Your task to perform on an android device: toggle show notifications on the lock screen Image 0: 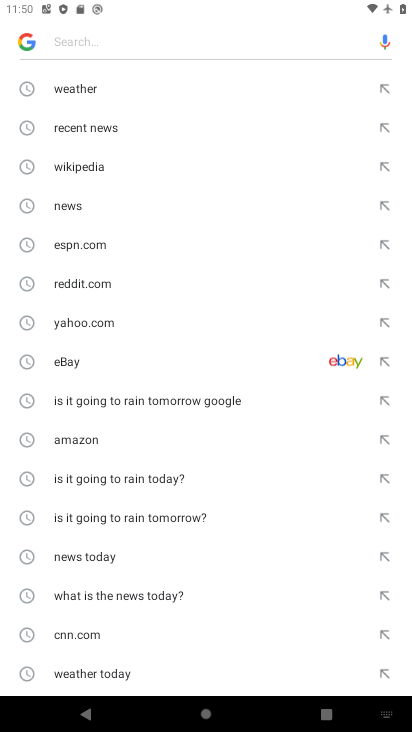
Step 0: press home button
Your task to perform on an android device: toggle show notifications on the lock screen Image 1: 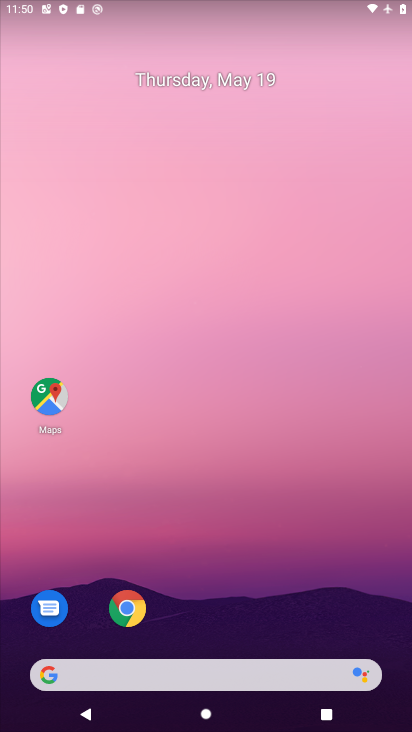
Step 1: drag from (341, 629) to (370, 150)
Your task to perform on an android device: toggle show notifications on the lock screen Image 2: 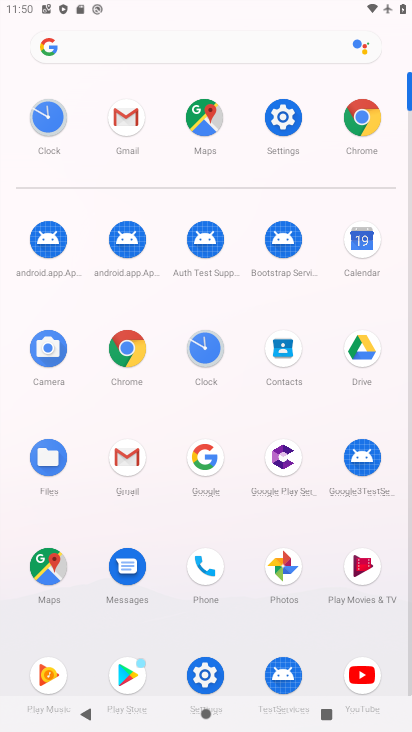
Step 2: click (291, 148)
Your task to perform on an android device: toggle show notifications on the lock screen Image 3: 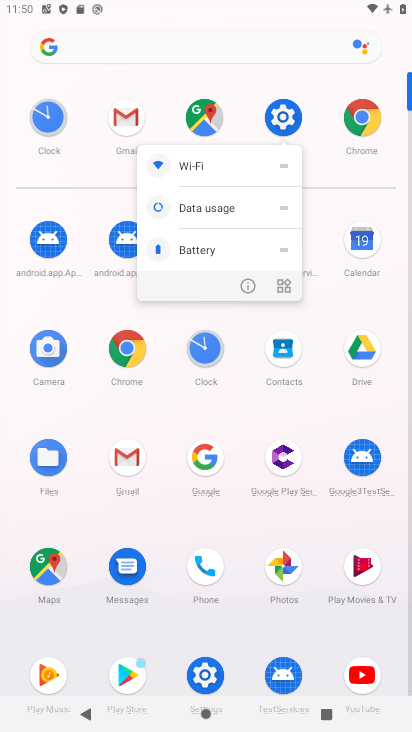
Step 3: click (290, 137)
Your task to perform on an android device: toggle show notifications on the lock screen Image 4: 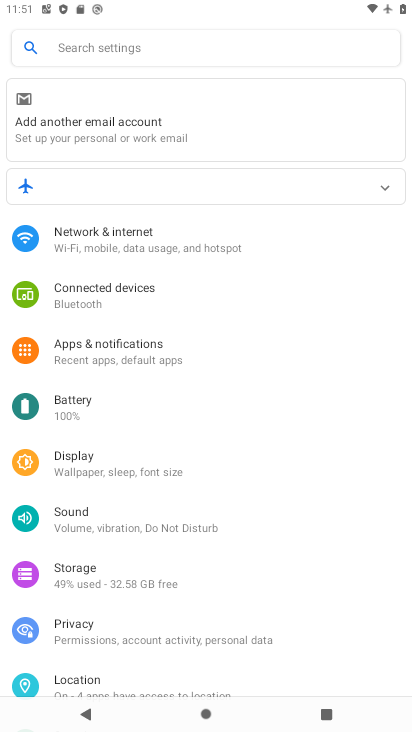
Step 4: drag from (309, 536) to (314, 405)
Your task to perform on an android device: toggle show notifications on the lock screen Image 5: 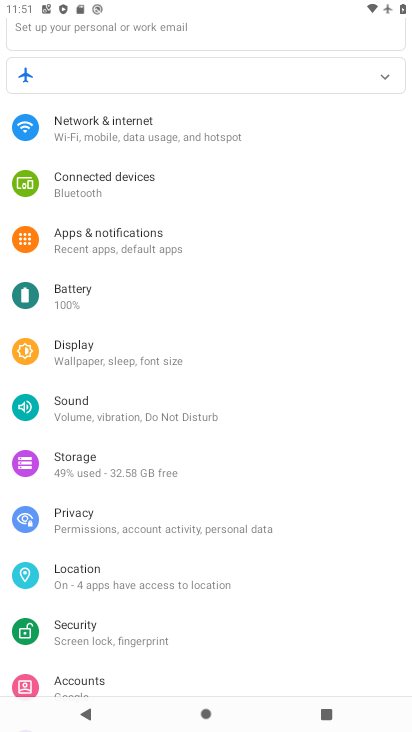
Step 5: drag from (318, 598) to (315, 453)
Your task to perform on an android device: toggle show notifications on the lock screen Image 6: 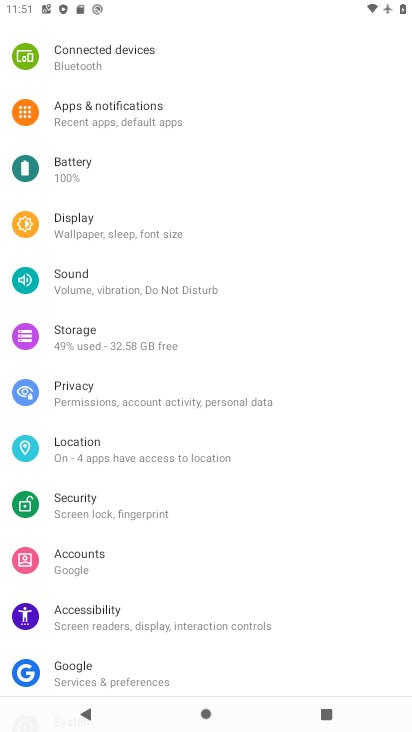
Step 6: drag from (315, 612) to (314, 450)
Your task to perform on an android device: toggle show notifications on the lock screen Image 7: 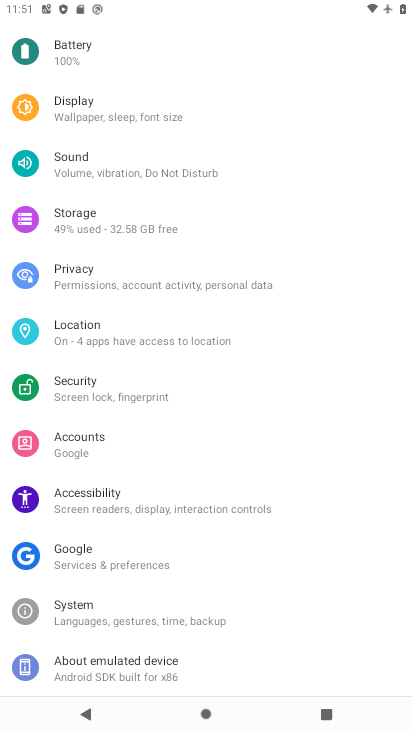
Step 7: drag from (302, 624) to (307, 431)
Your task to perform on an android device: toggle show notifications on the lock screen Image 8: 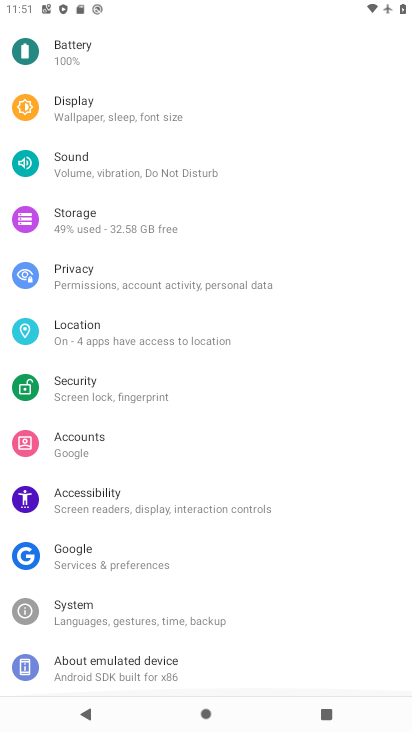
Step 8: drag from (309, 596) to (318, 387)
Your task to perform on an android device: toggle show notifications on the lock screen Image 9: 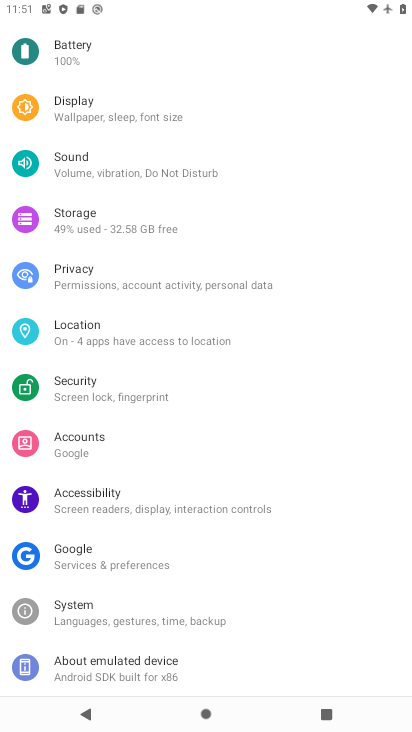
Step 9: drag from (323, 286) to (318, 485)
Your task to perform on an android device: toggle show notifications on the lock screen Image 10: 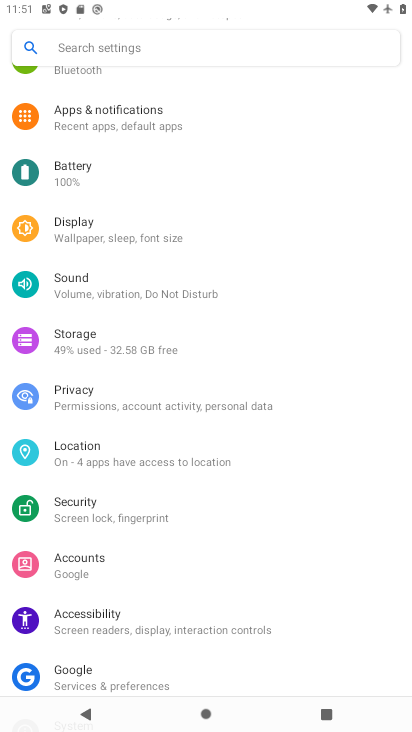
Step 10: drag from (323, 302) to (332, 458)
Your task to perform on an android device: toggle show notifications on the lock screen Image 11: 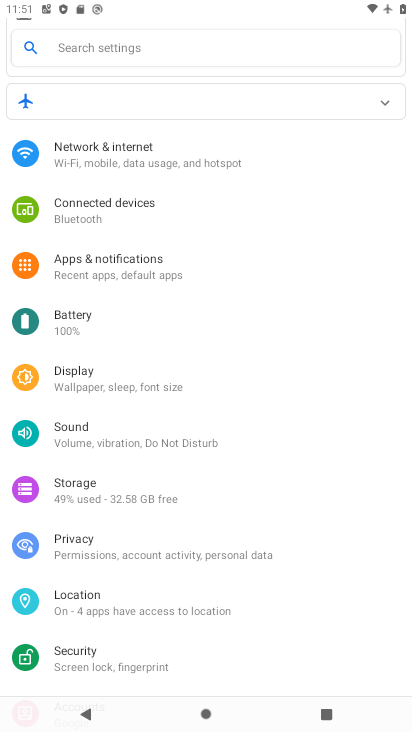
Step 11: drag from (308, 355) to (321, 508)
Your task to perform on an android device: toggle show notifications on the lock screen Image 12: 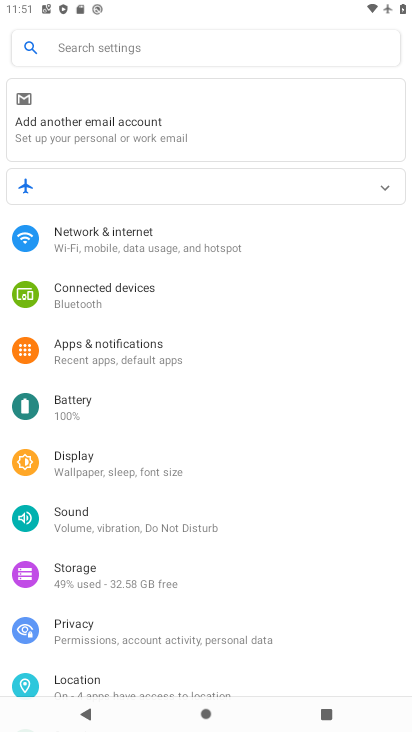
Step 12: drag from (316, 372) to (323, 459)
Your task to perform on an android device: toggle show notifications on the lock screen Image 13: 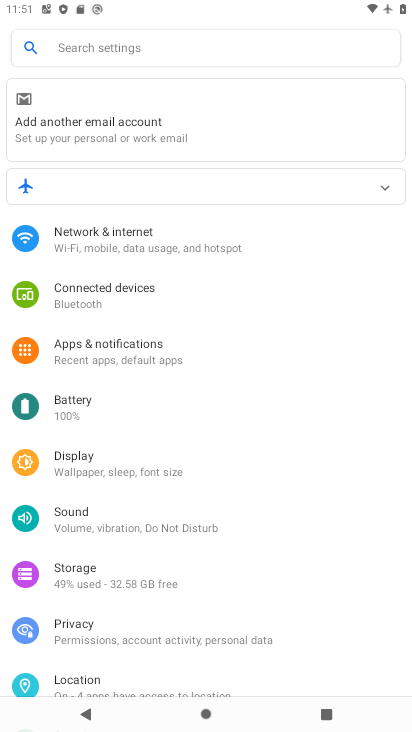
Step 13: click (160, 355)
Your task to perform on an android device: toggle show notifications on the lock screen Image 14: 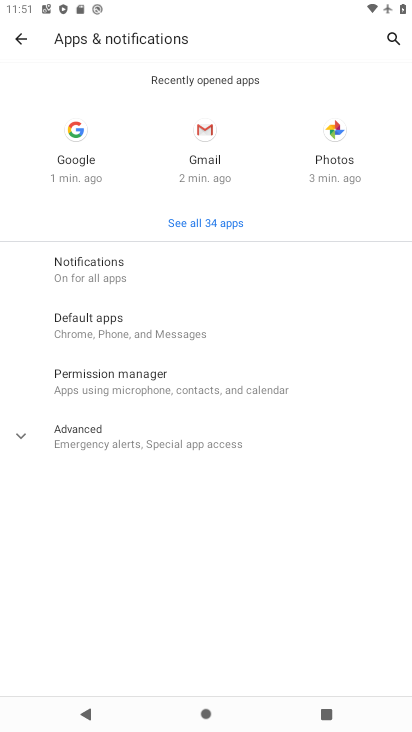
Step 14: click (106, 270)
Your task to perform on an android device: toggle show notifications on the lock screen Image 15: 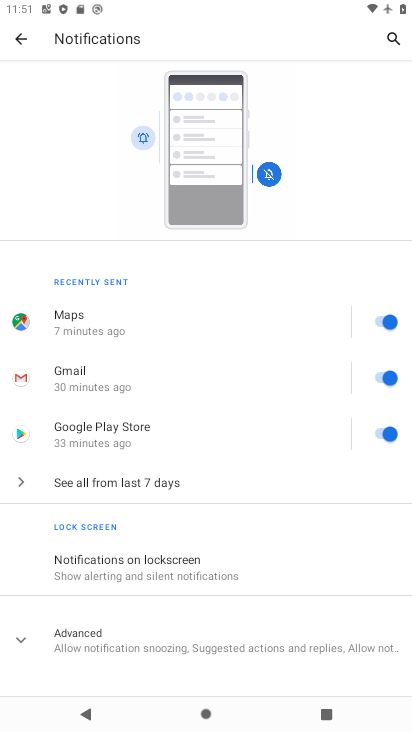
Step 15: click (183, 573)
Your task to perform on an android device: toggle show notifications on the lock screen Image 16: 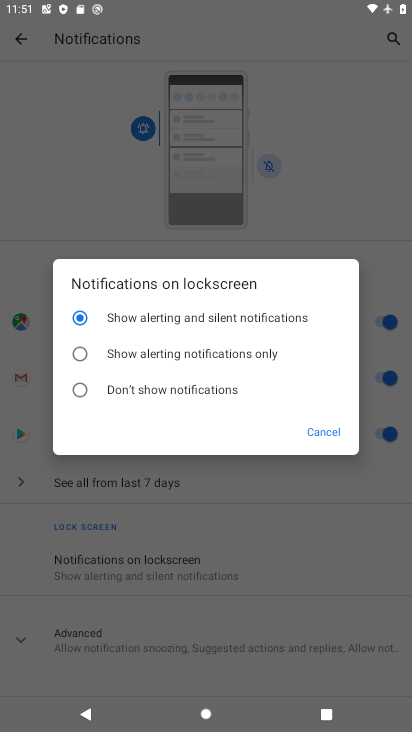
Step 16: click (108, 339)
Your task to perform on an android device: toggle show notifications on the lock screen Image 17: 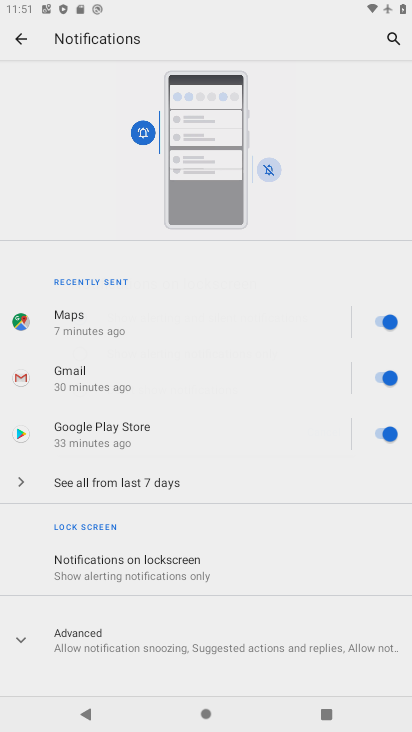
Step 17: click (112, 351)
Your task to perform on an android device: toggle show notifications on the lock screen Image 18: 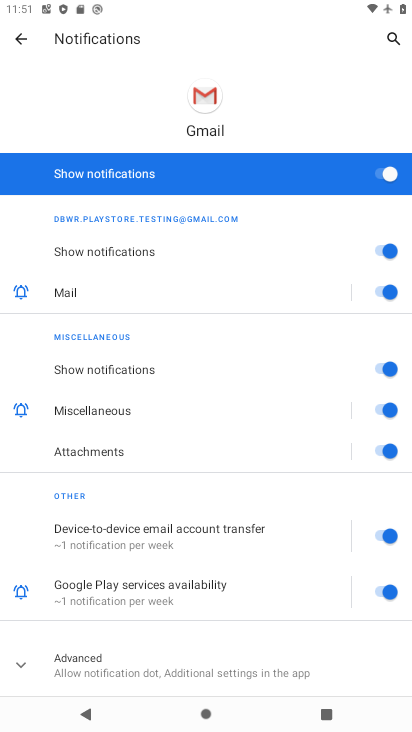
Step 18: task complete